Your task to perform on an android device: snooze an email in the gmail app Image 0: 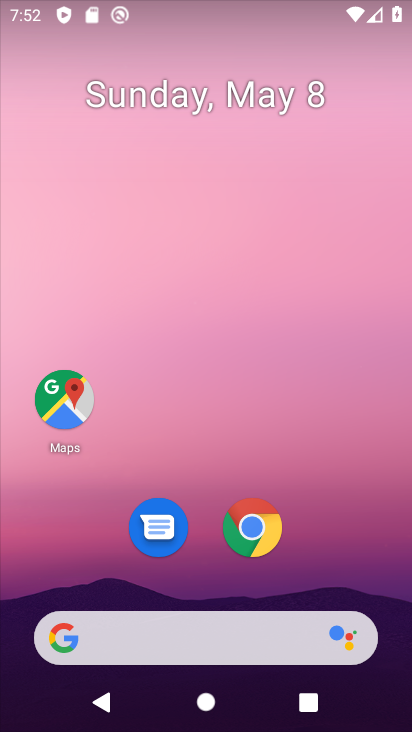
Step 0: drag from (356, 553) to (248, 0)
Your task to perform on an android device: snooze an email in the gmail app Image 1: 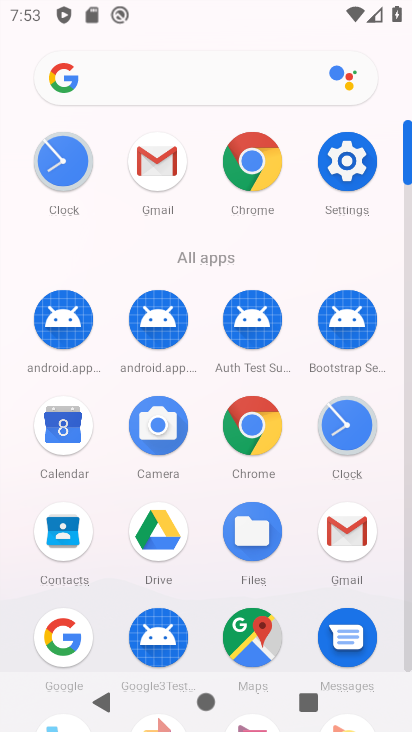
Step 1: drag from (8, 587) to (8, 278)
Your task to perform on an android device: snooze an email in the gmail app Image 2: 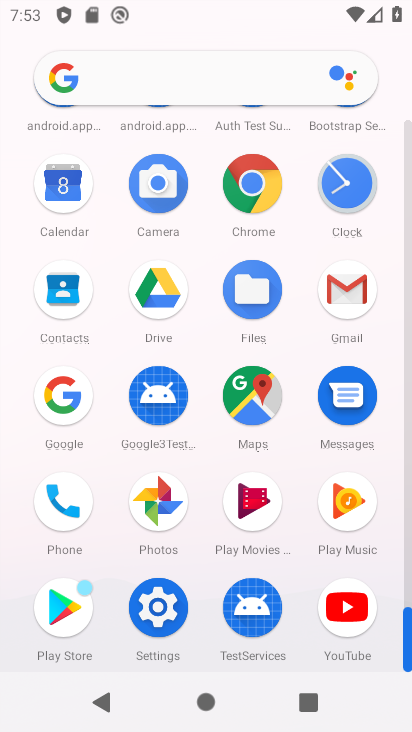
Step 2: click (347, 283)
Your task to perform on an android device: snooze an email in the gmail app Image 3: 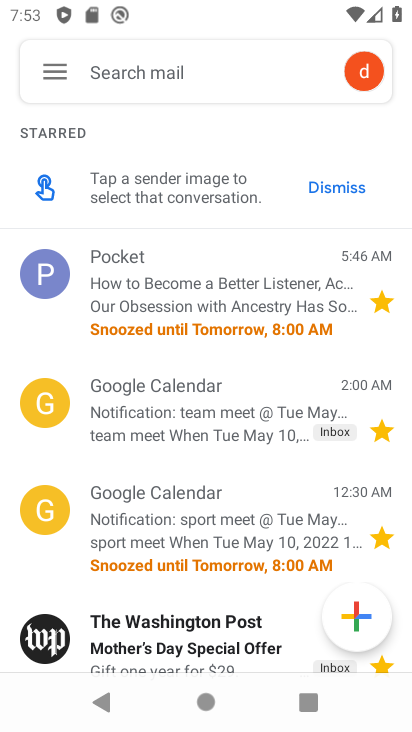
Step 3: click (49, 63)
Your task to perform on an android device: snooze an email in the gmail app Image 4: 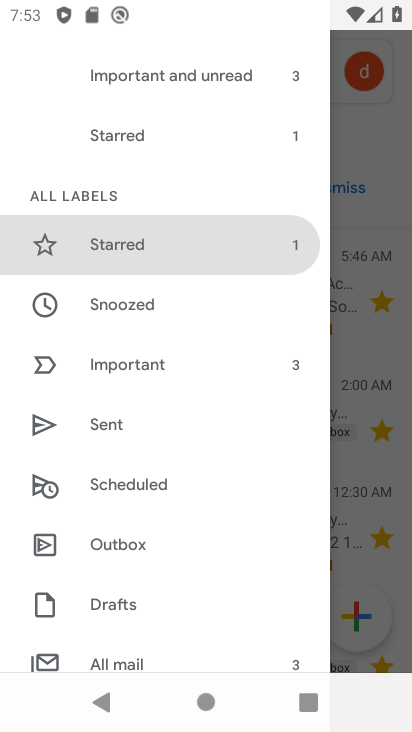
Step 4: click (151, 306)
Your task to perform on an android device: snooze an email in the gmail app Image 5: 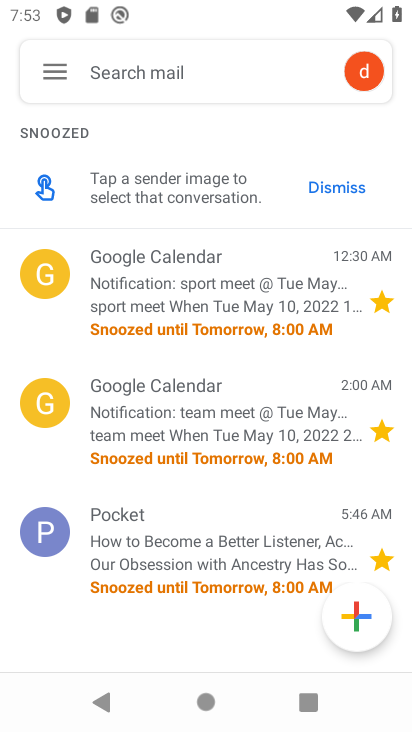
Step 5: task complete